Your task to perform on an android device: What's the news in Vietnam? Image 0: 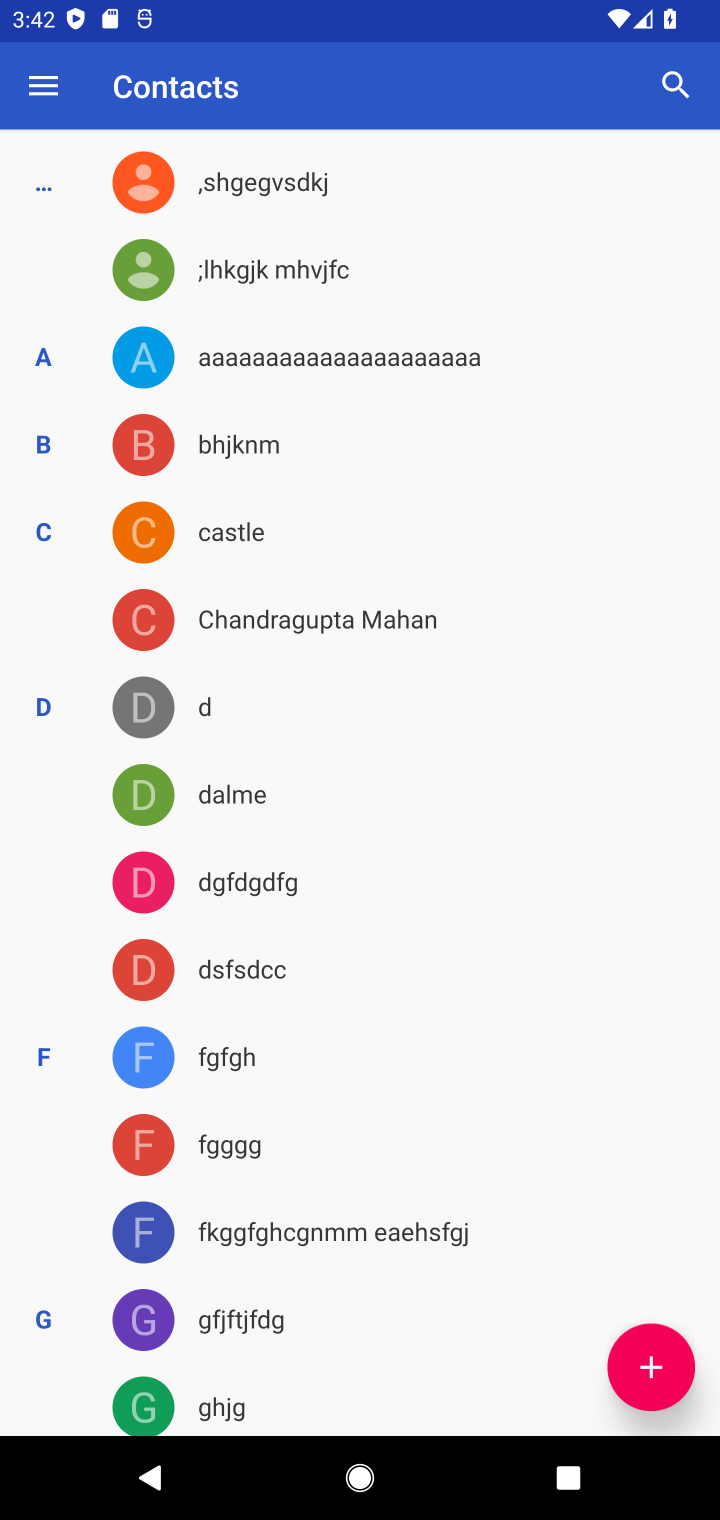
Step 0: press home button
Your task to perform on an android device: What's the news in Vietnam? Image 1: 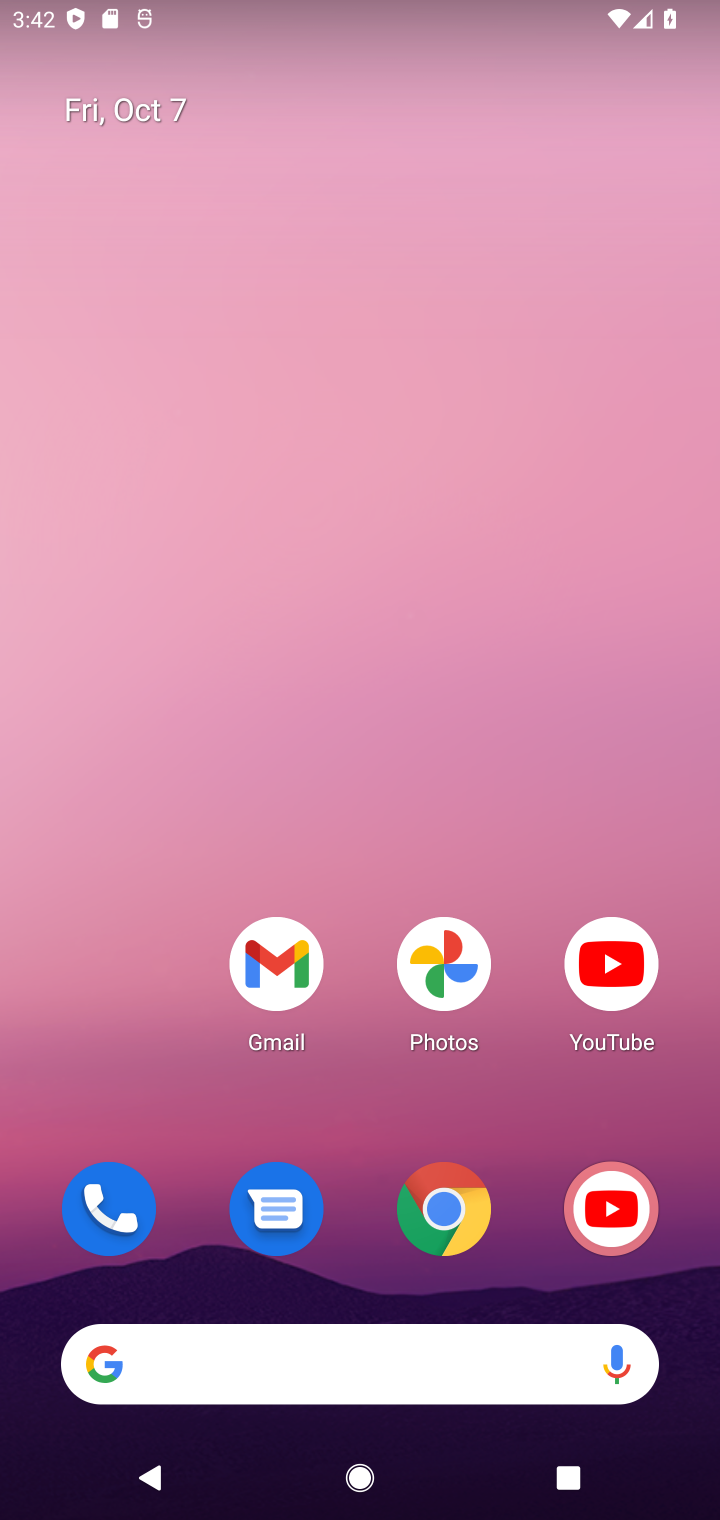
Step 1: click (432, 1377)
Your task to perform on an android device: What's the news in Vietnam? Image 2: 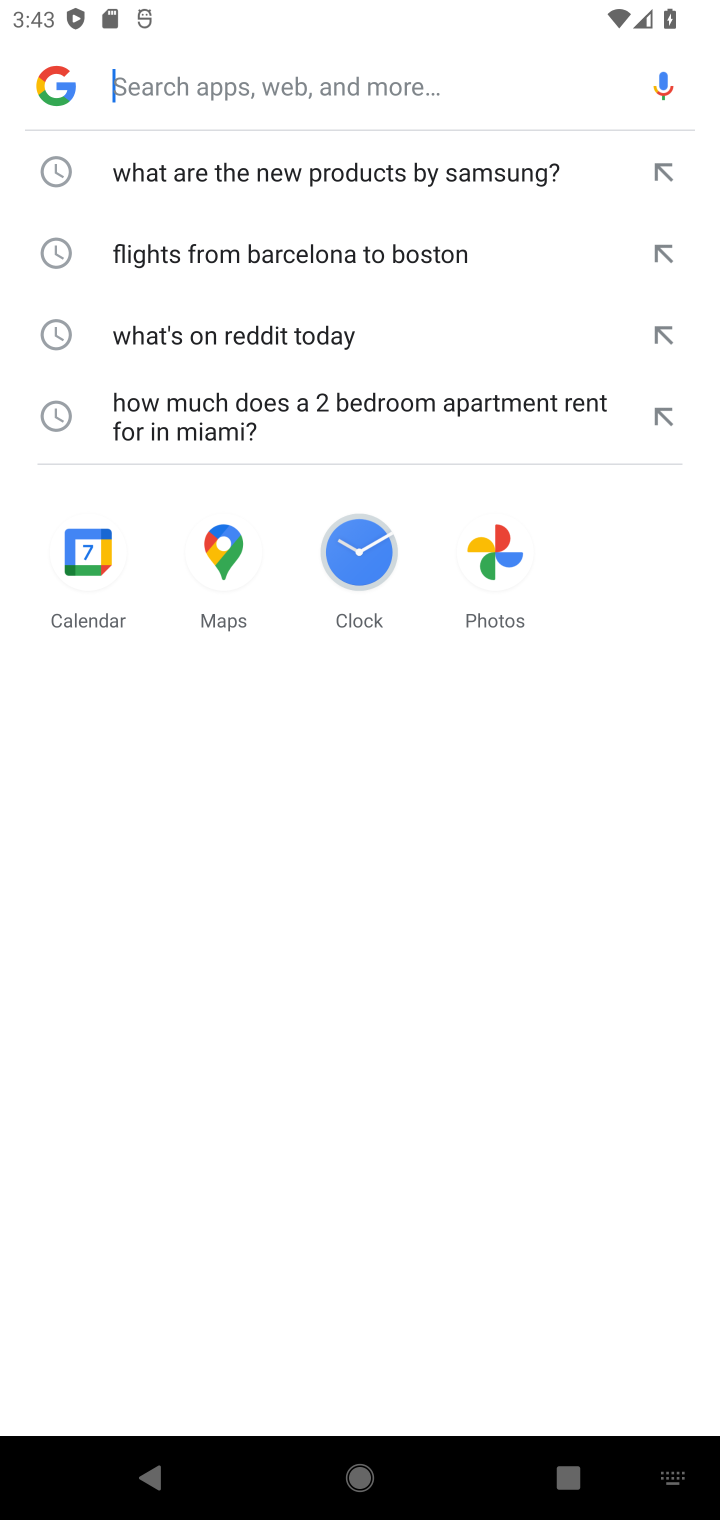
Step 2: type "What's the news in Vietnam?"
Your task to perform on an android device: What's the news in Vietnam? Image 3: 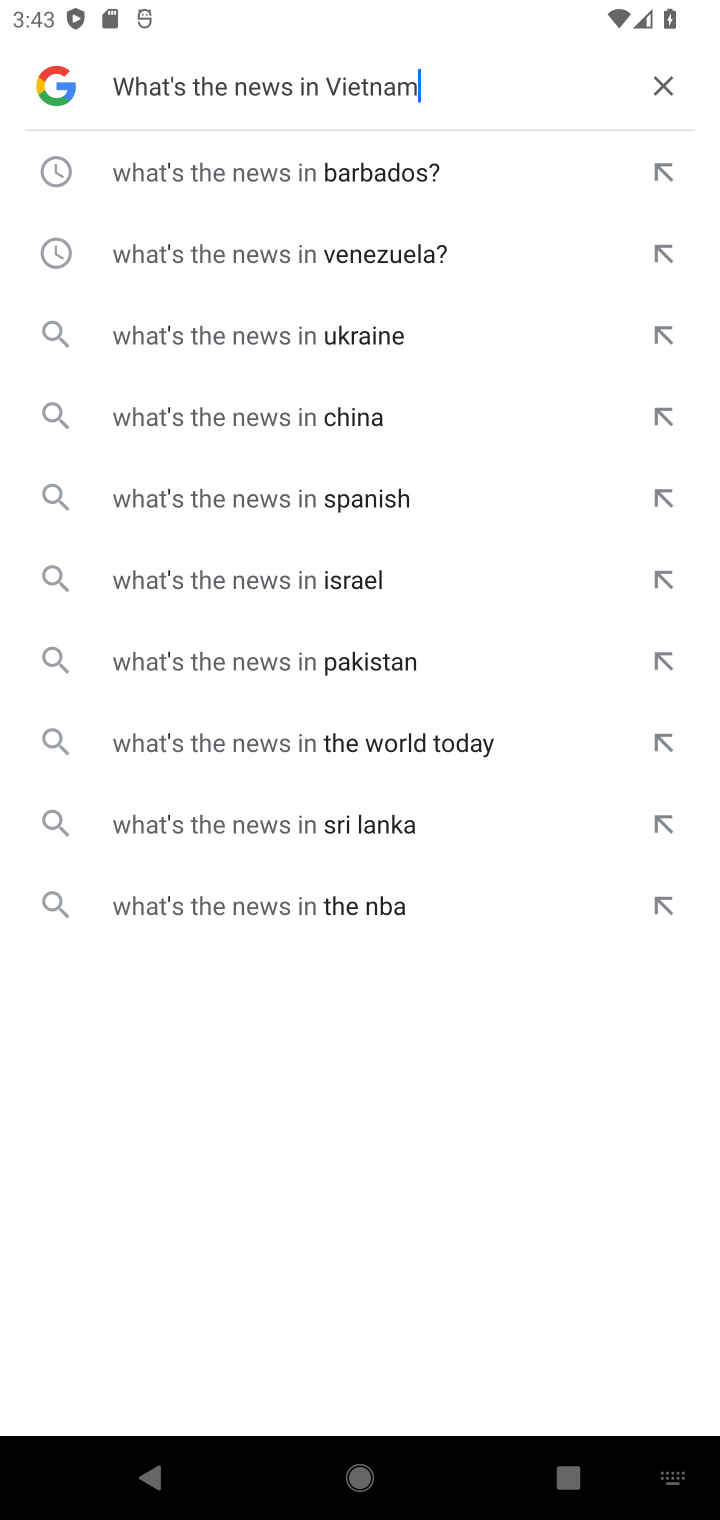
Step 3: press enter
Your task to perform on an android device: What's the news in Vietnam? Image 4: 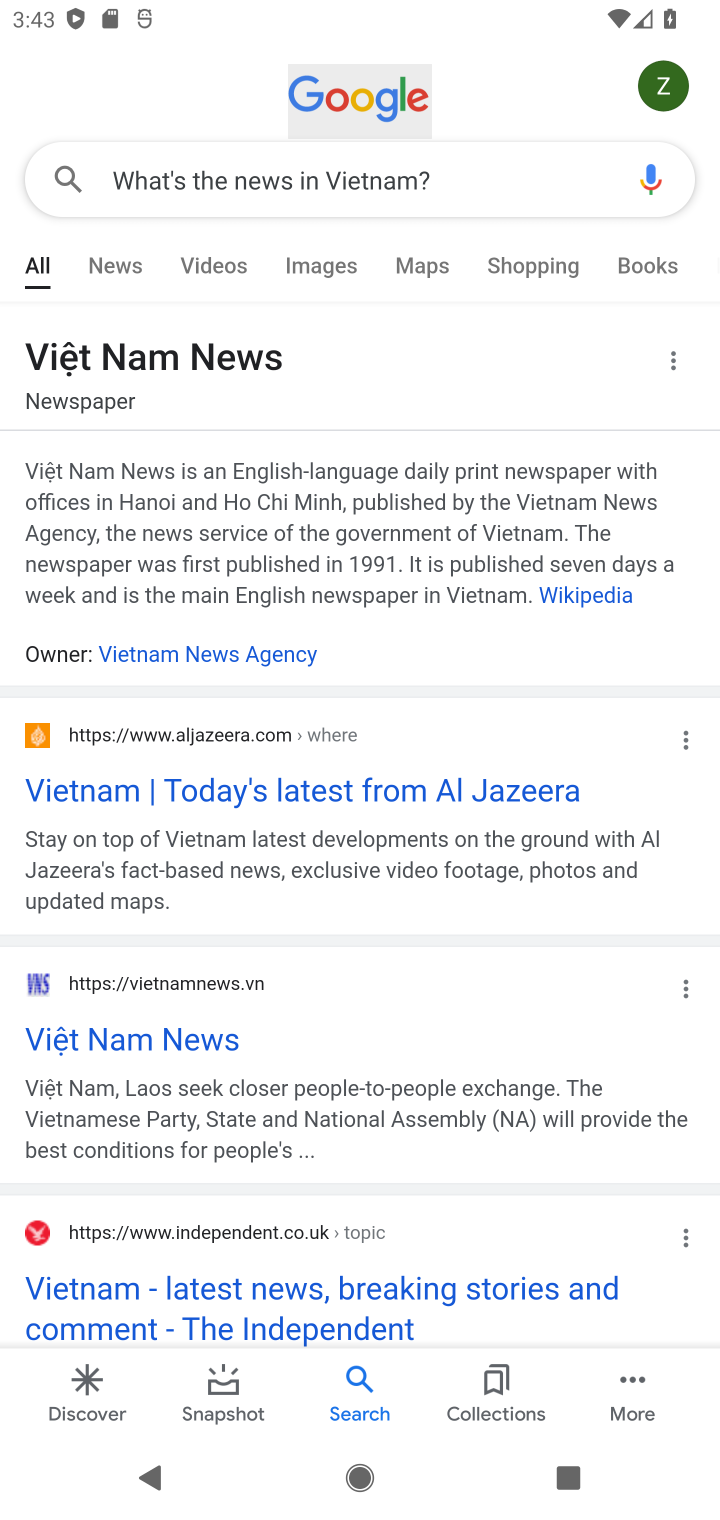
Step 4: drag from (424, 1078) to (424, 671)
Your task to perform on an android device: What's the news in Vietnam? Image 5: 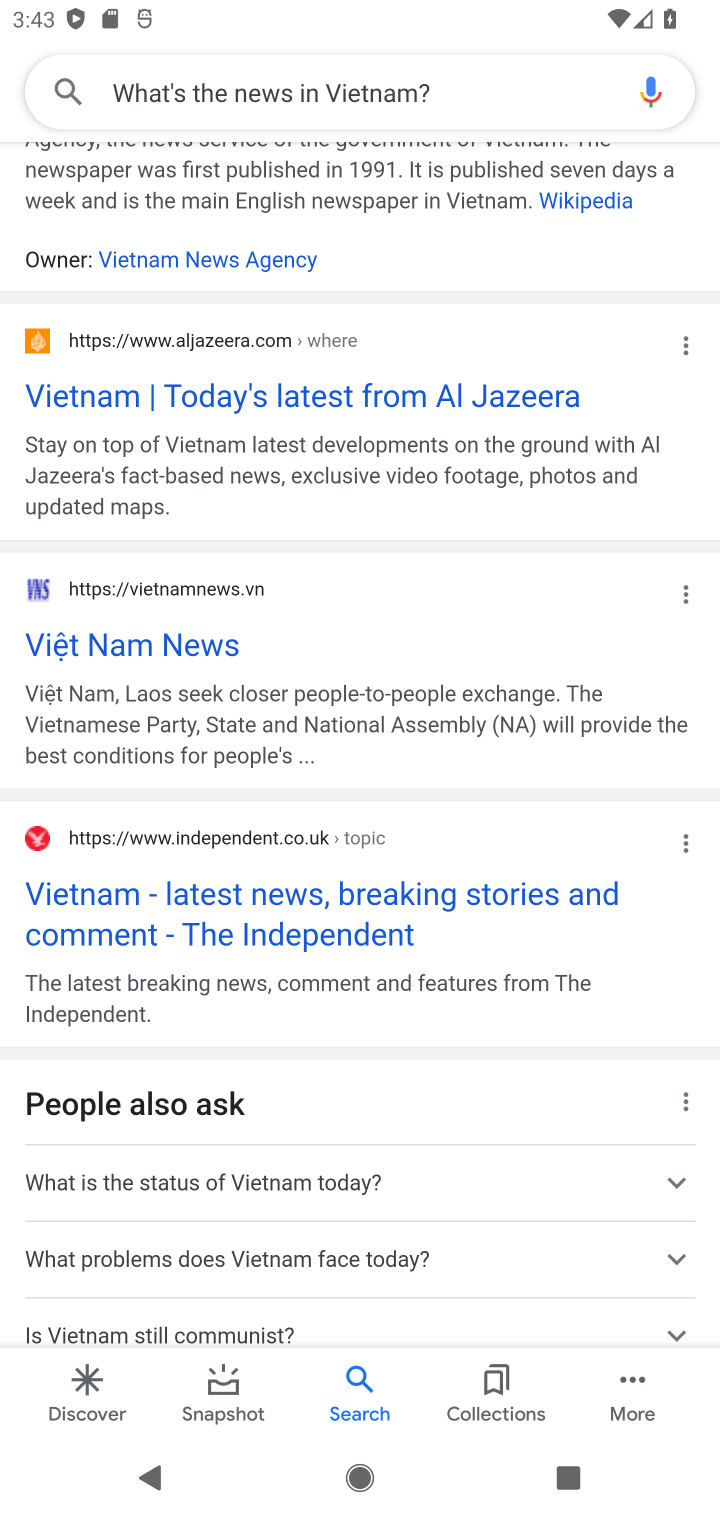
Step 5: click (376, 915)
Your task to perform on an android device: What's the news in Vietnam? Image 6: 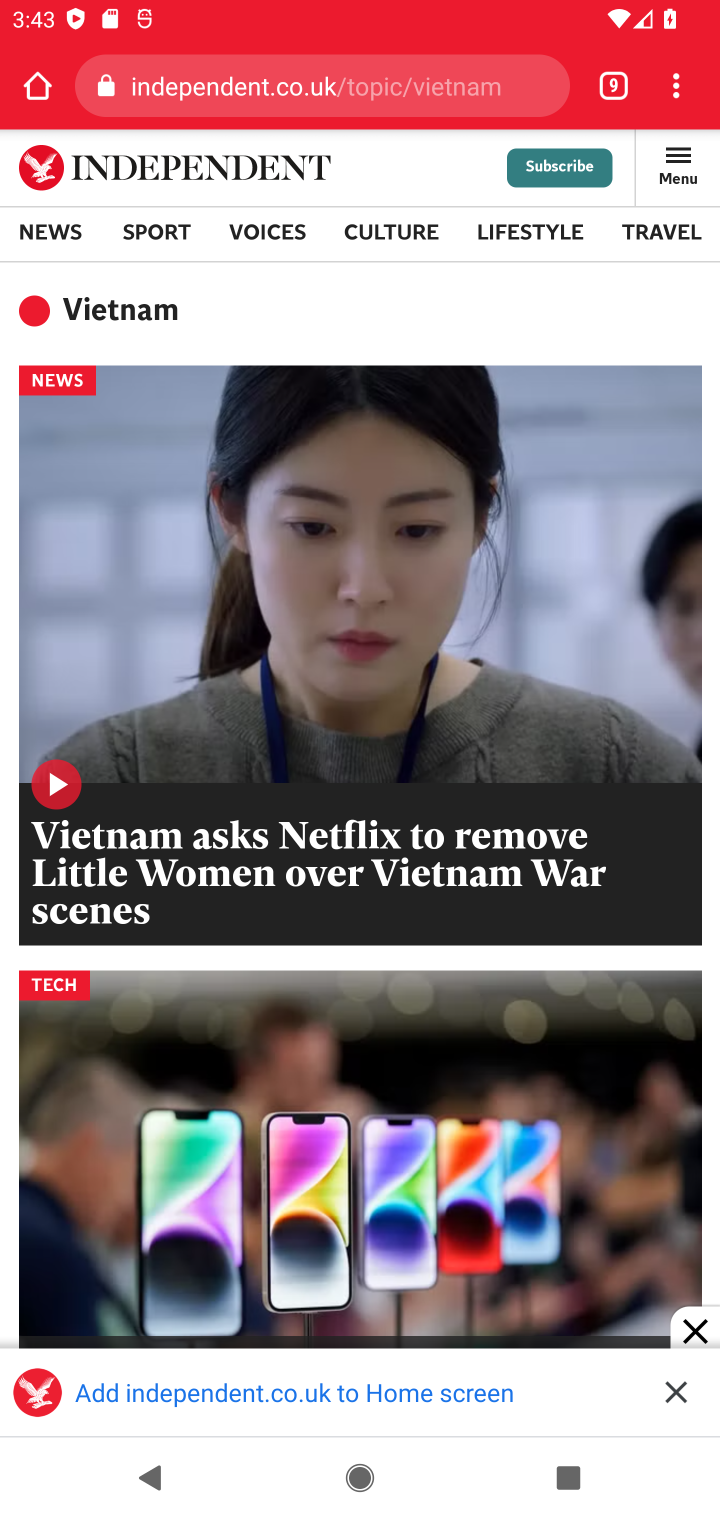
Step 6: task complete